Your task to perform on an android device: turn notification dots off Image 0: 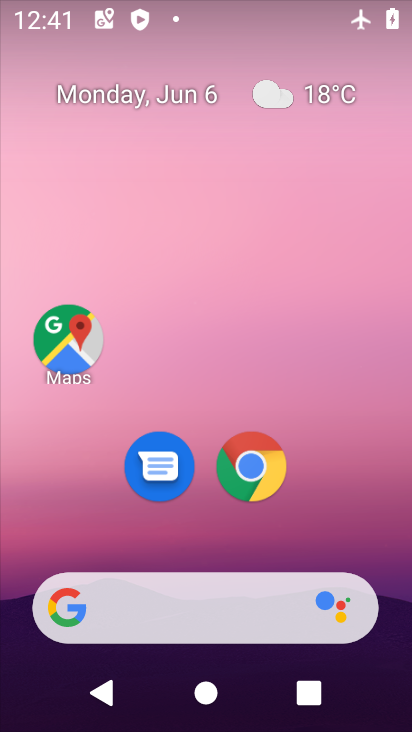
Step 0: drag from (340, 471) to (240, 40)
Your task to perform on an android device: turn notification dots off Image 1: 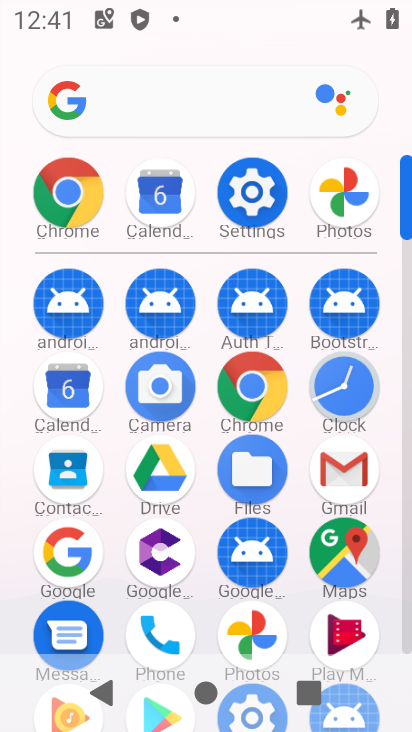
Step 1: drag from (8, 599) to (0, 292)
Your task to perform on an android device: turn notification dots off Image 2: 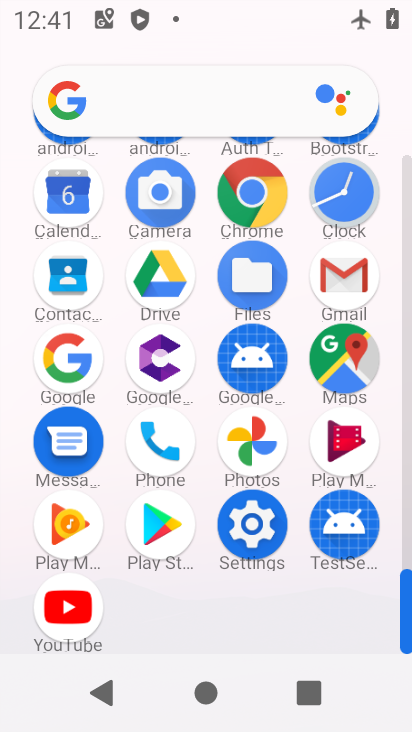
Step 2: click (250, 519)
Your task to perform on an android device: turn notification dots off Image 3: 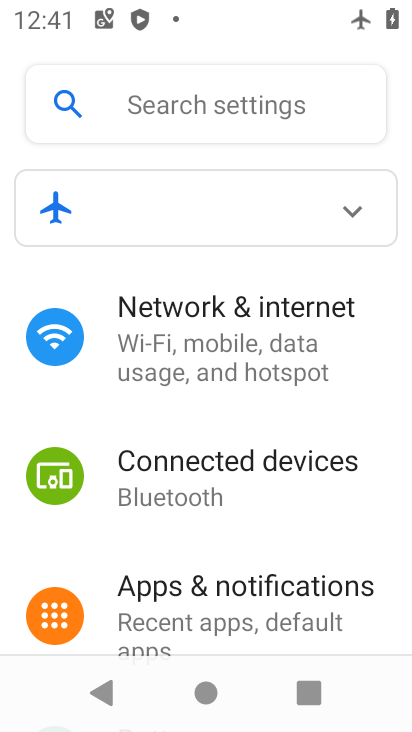
Step 3: drag from (265, 544) to (253, 155)
Your task to perform on an android device: turn notification dots off Image 4: 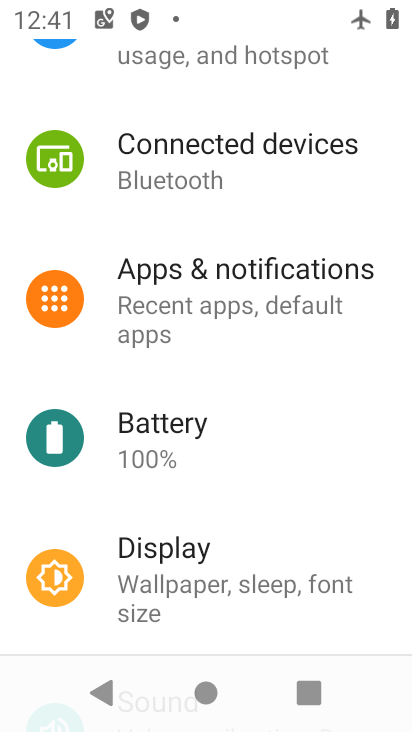
Step 4: click (197, 263)
Your task to perform on an android device: turn notification dots off Image 5: 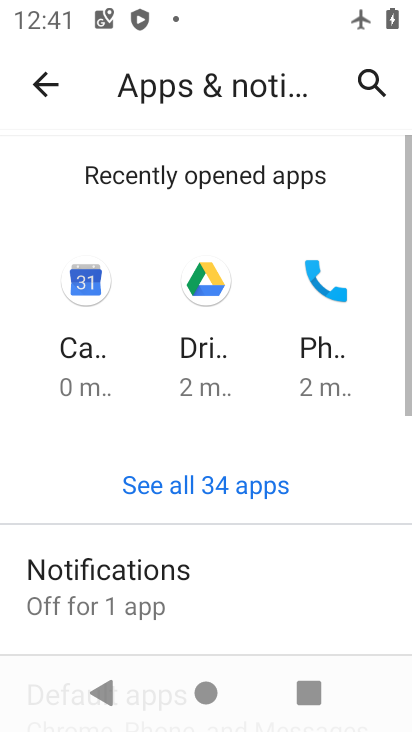
Step 5: click (223, 571)
Your task to perform on an android device: turn notification dots off Image 6: 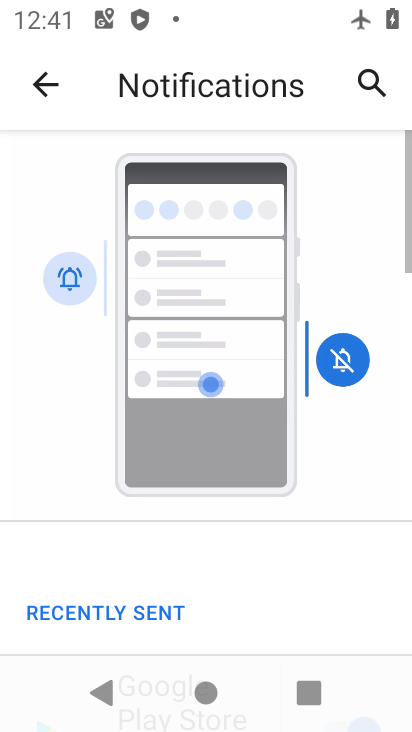
Step 6: drag from (303, 581) to (283, 163)
Your task to perform on an android device: turn notification dots off Image 7: 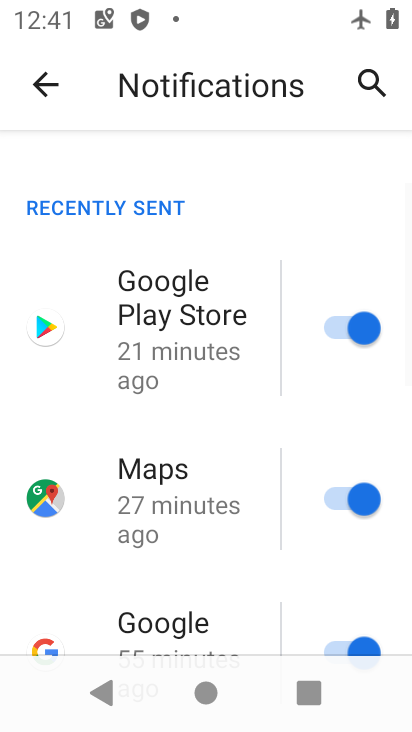
Step 7: drag from (231, 561) to (224, 123)
Your task to perform on an android device: turn notification dots off Image 8: 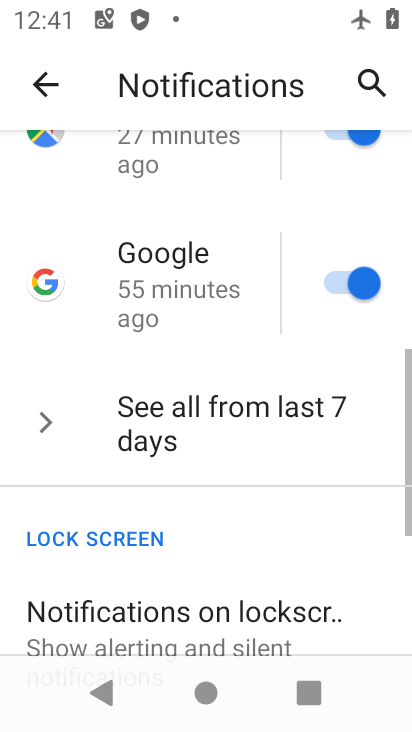
Step 8: drag from (211, 556) to (210, 171)
Your task to perform on an android device: turn notification dots off Image 9: 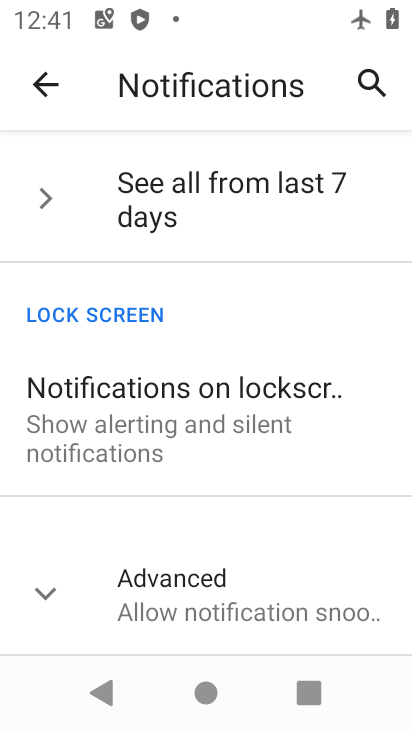
Step 9: click (16, 592)
Your task to perform on an android device: turn notification dots off Image 10: 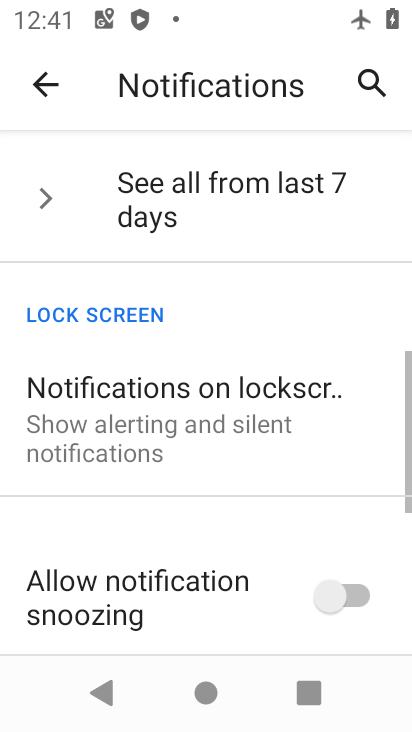
Step 10: task complete